Your task to perform on an android device: uninstall "LiveIn - Share Your Moment" Image 0: 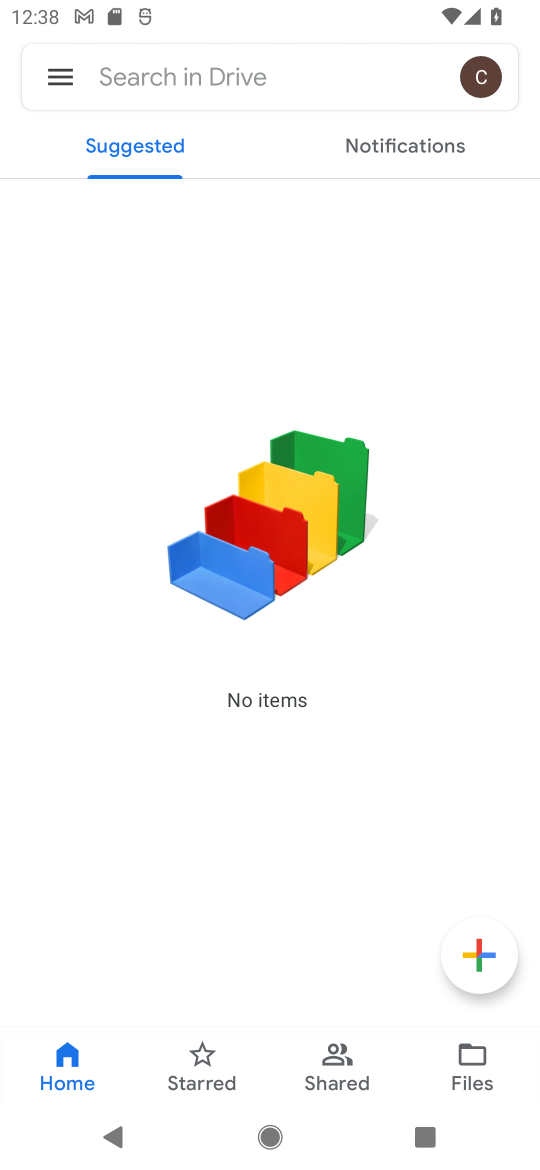
Step 0: press home button
Your task to perform on an android device: uninstall "LiveIn - Share Your Moment" Image 1: 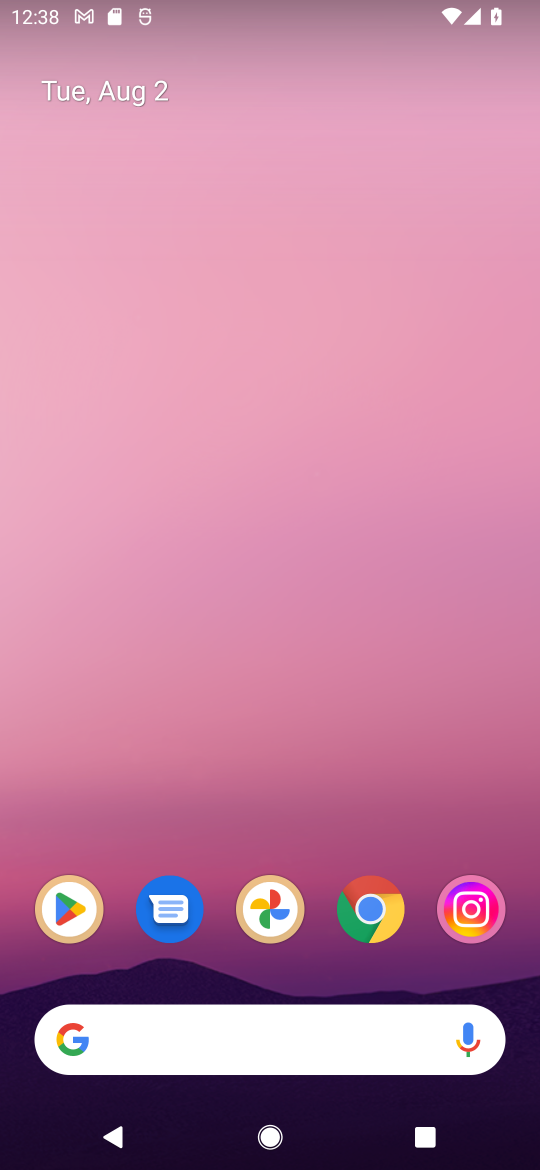
Step 1: click (76, 906)
Your task to perform on an android device: uninstall "LiveIn - Share Your Moment" Image 2: 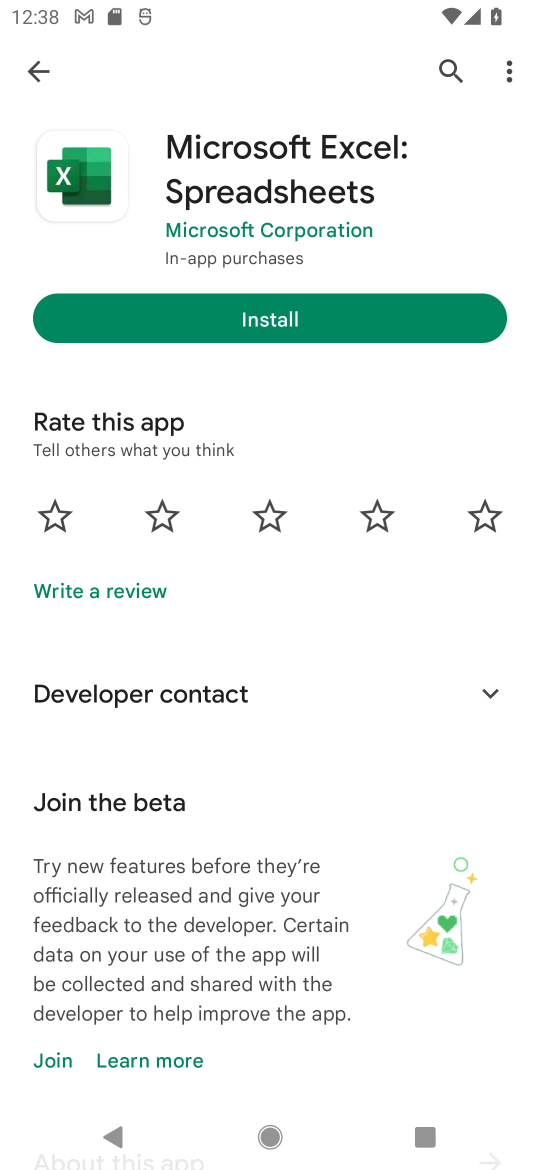
Step 2: click (39, 66)
Your task to perform on an android device: uninstall "LiveIn - Share Your Moment" Image 3: 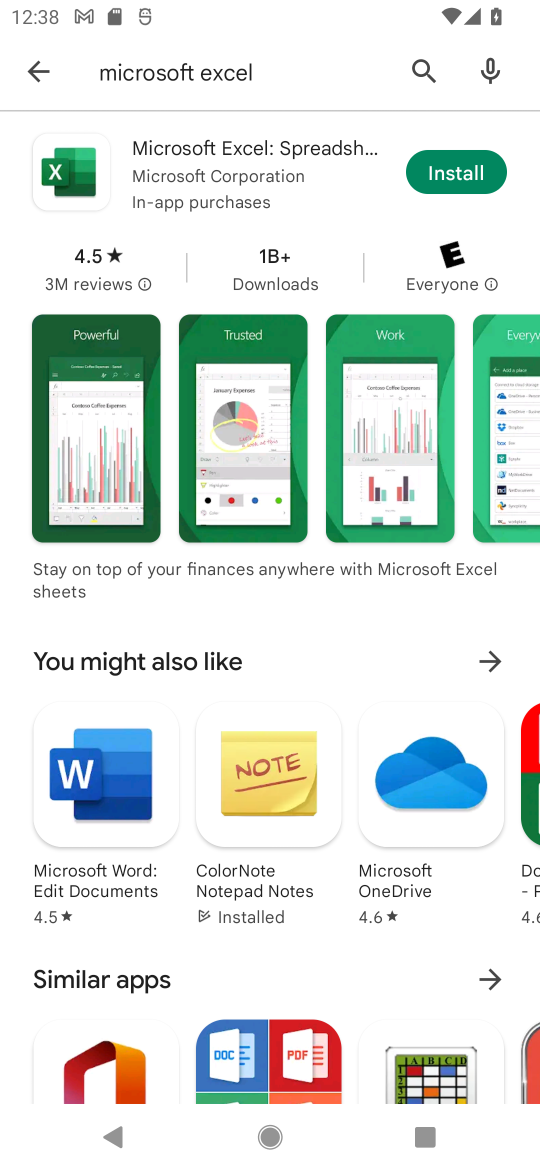
Step 3: click (417, 55)
Your task to perform on an android device: uninstall "LiveIn - Share Your Moment" Image 4: 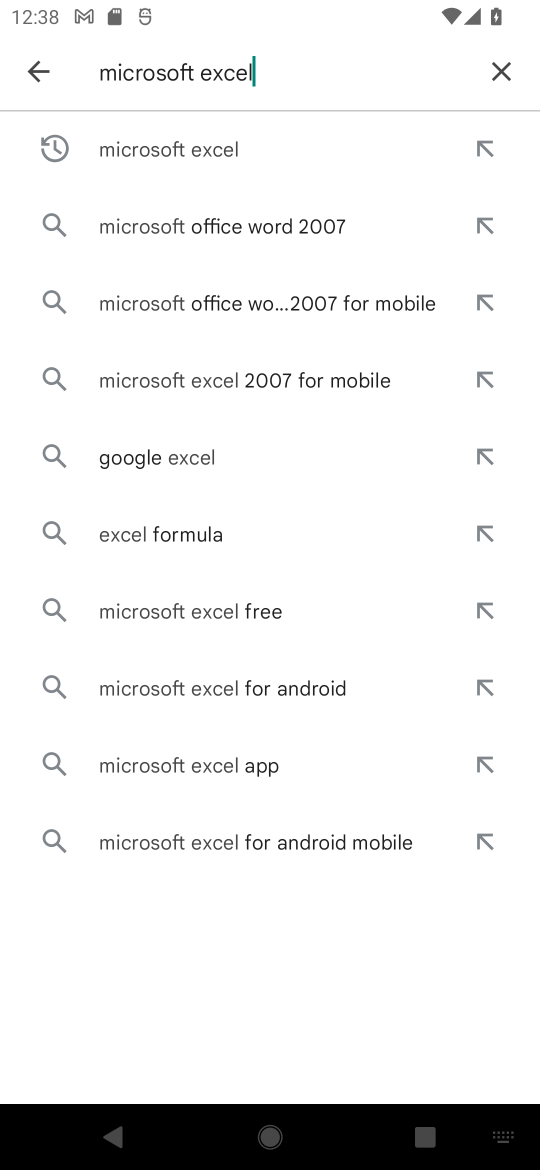
Step 4: click (507, 67)
Your task to perform on an android device: uninstall "LiveIn - Share Your Moment" Image 5: 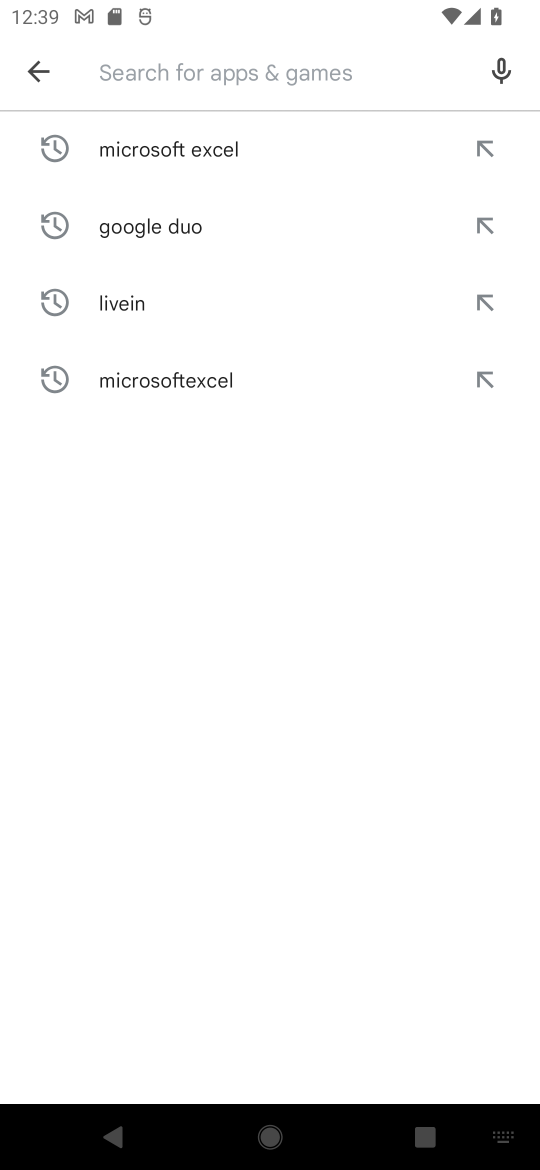
Step 5: type "LiveIn - Share Your Moment"
Your task to perform on an android device: uninstall "LiveIn - Share Your Moment" Image 6: 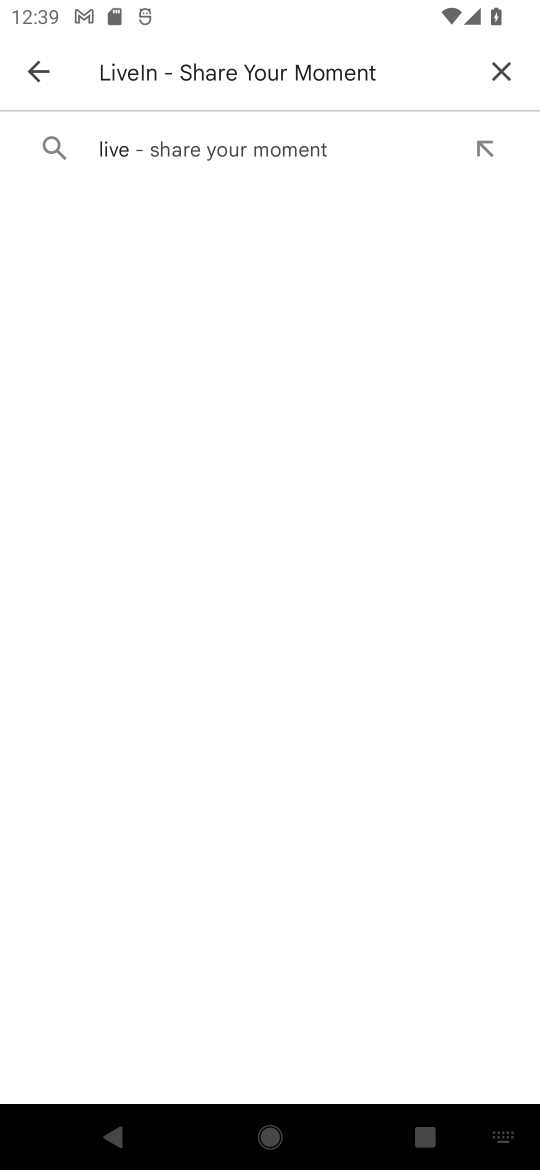
Step 6: click (254, 143)
Your task to perform on an android device: uninstall "LiveIn - Share Your Moment" Image 7: 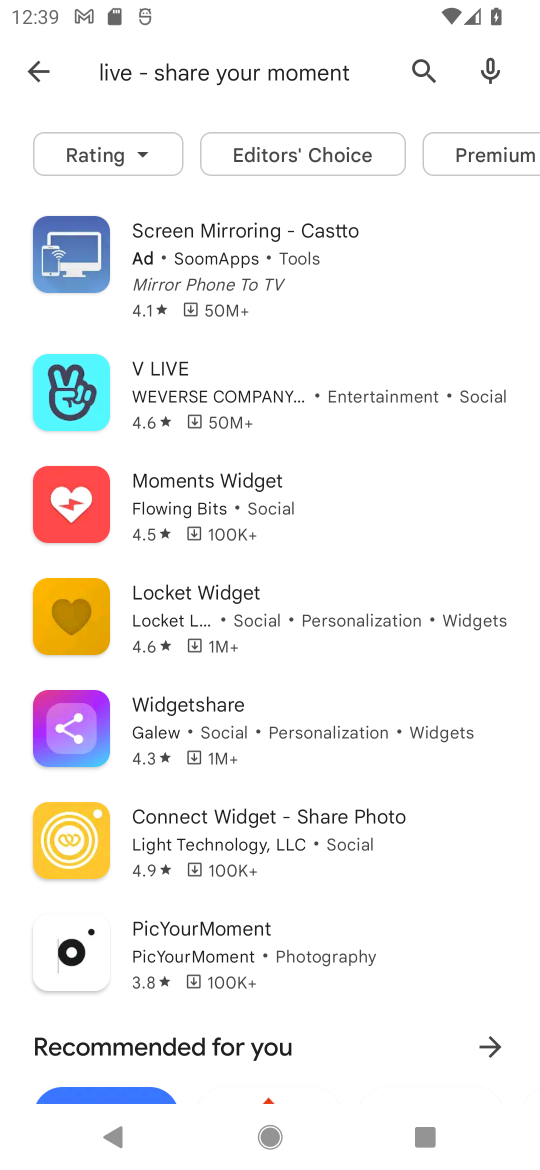
Step 7: task complete